Your task to perform on an android device: Add macbook pro 13 inch to the cart on newegg.com Image 0: 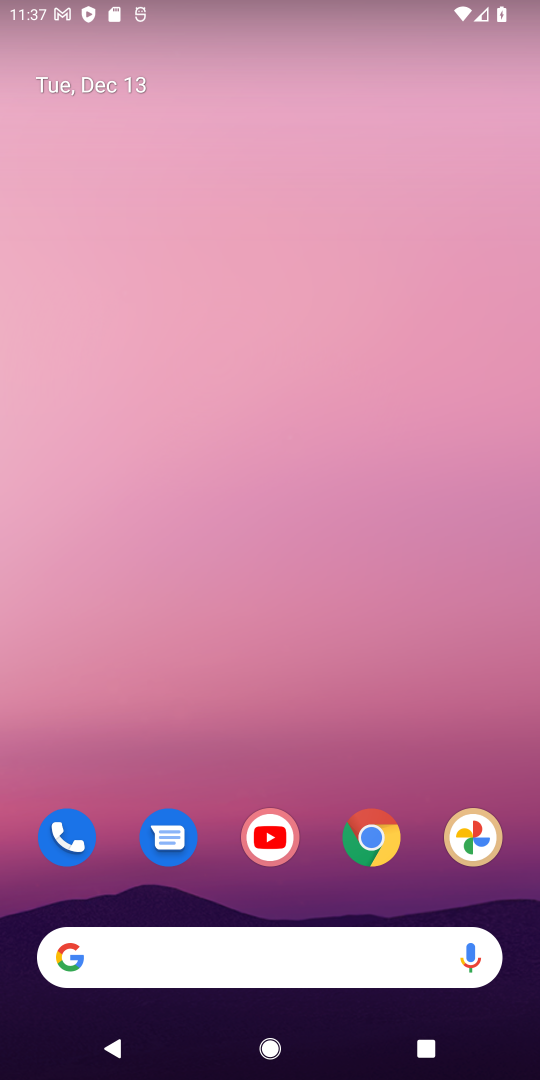
Step 0: click (354, 842)
Your task to perform on an android device: Add macbook pro 13 inch to the cart on newegg.com Image 1: 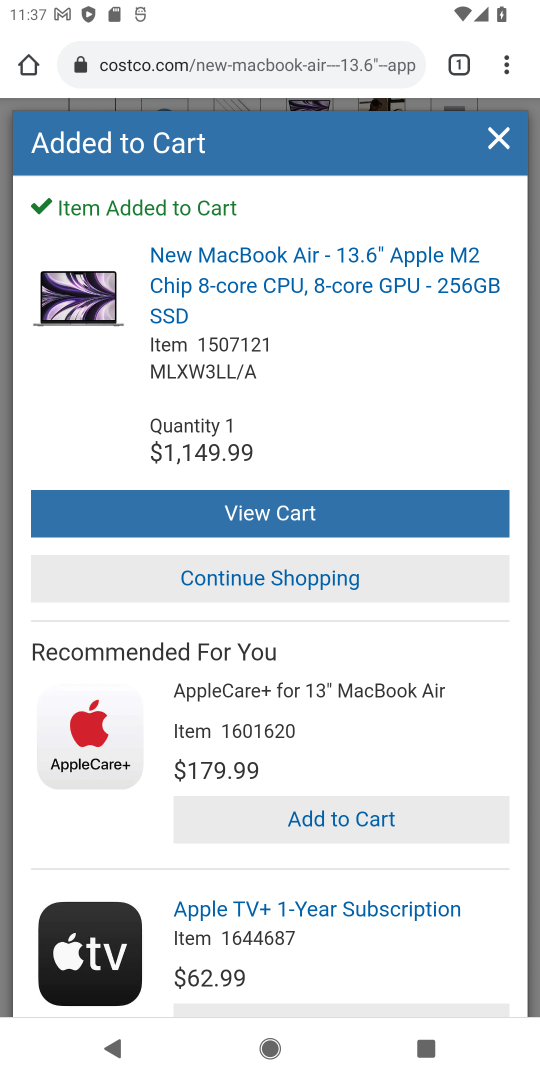
Step 1: task complete